Your task to perform on an android device: Go to CNN.com Image 0: 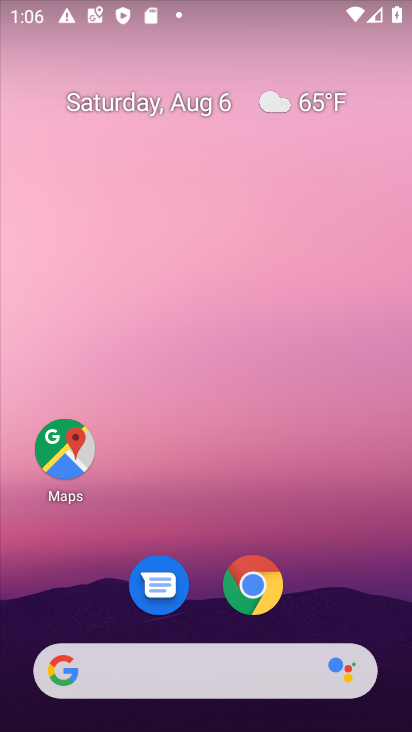
Step 0: click (243, 677)
Your task to perform on an android device: Go to CNN.com Image 1: 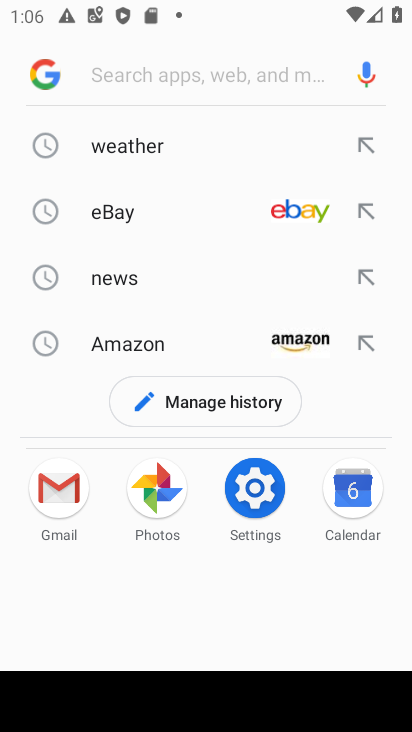
Step 1: type "cnn.com"
Your task to perform on an android device: Go to CNN.com Image 2: 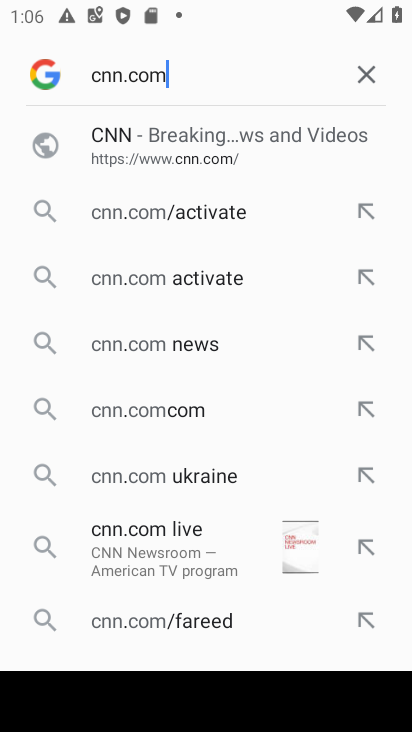
Step 2: click (235, 144)
Your task to perform on an android device: Go to CNN.com Image 3: 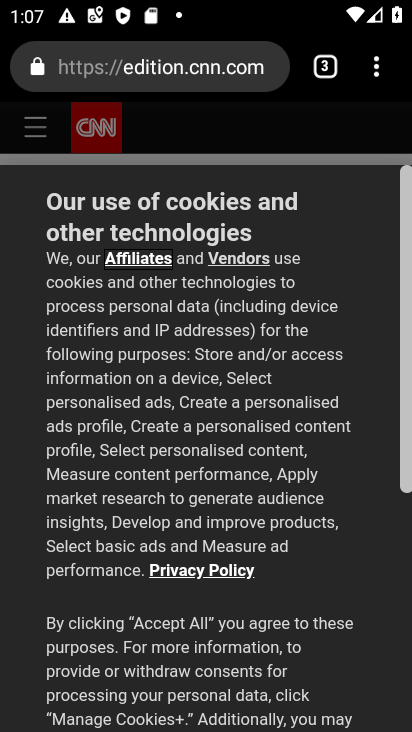
Step 3: drag from (228, 657) to (264, 138)
Your task to perform on an android device: Go to CNN.com Image 4: 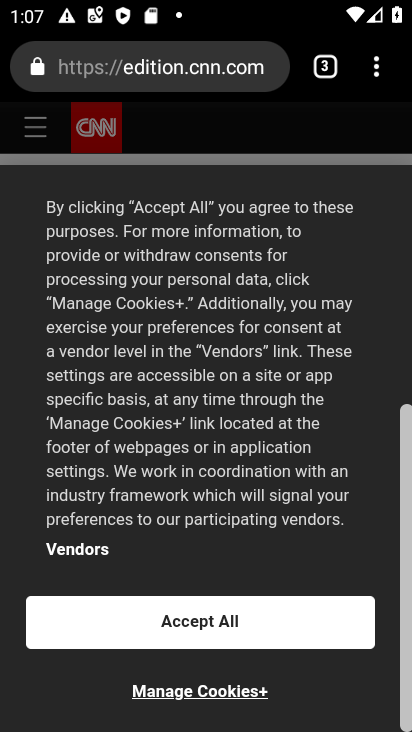
Step 4: click (275, 621)
Your task to perform on an android device: Go to CNN.com Image 5: 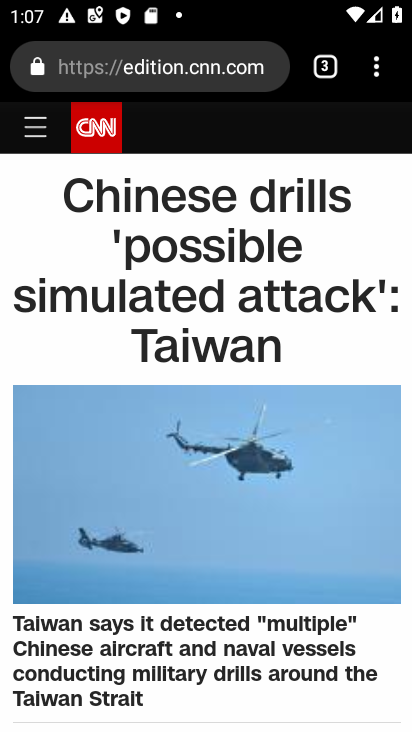
Step 5: task complete